Your task to perform on an android device: empty trash in the gmail app Image 0: 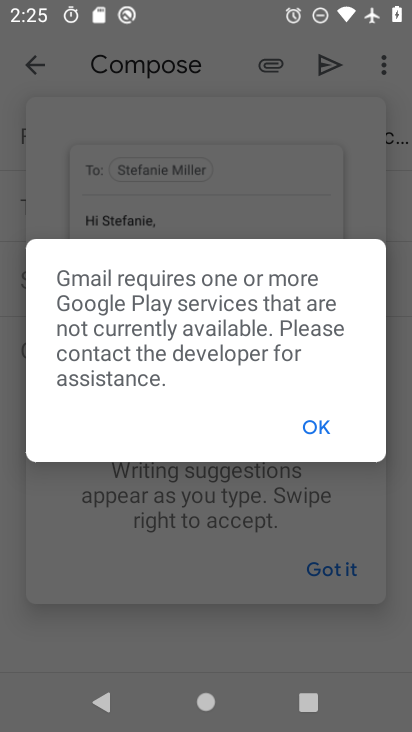
Step 0: press home button
Your task to perform on an android device: empty trash in the gmail app Image 1: 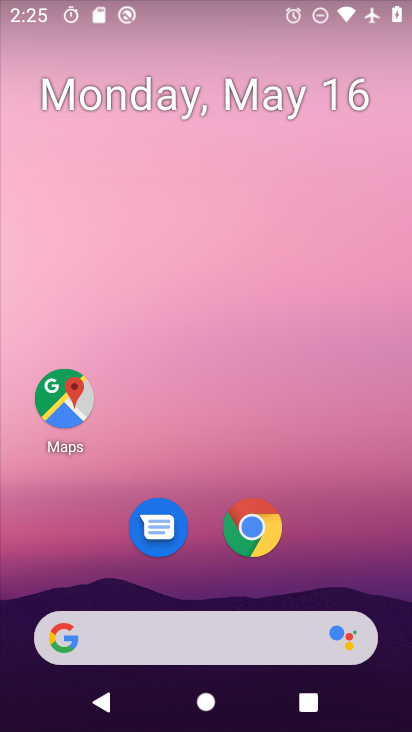
Step 1: drag from (172, 644) to (344, 126)
Your task to perform on an android device: empty trash in the gmail app Image 2: 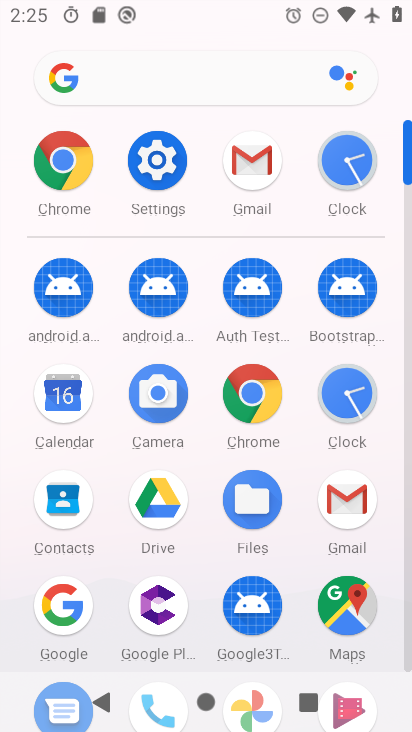
Step 2: click (343, 512)
Your task to perform on an android device: empty trash in the gmail app Image 3: 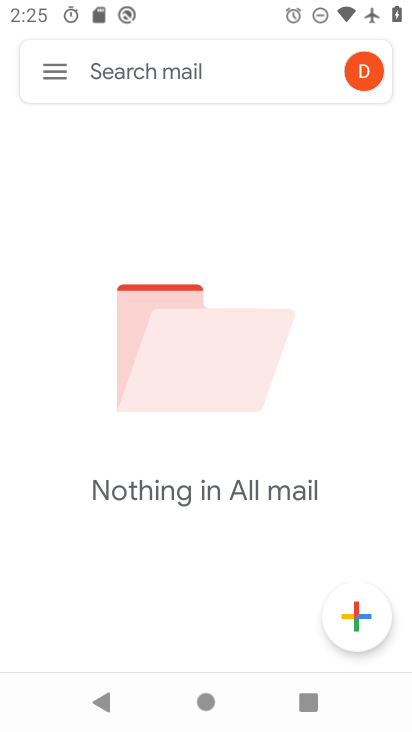
Step 3: click (64, 72)
Your task to perform on an android device: empty trash in the gmail app Image 4: 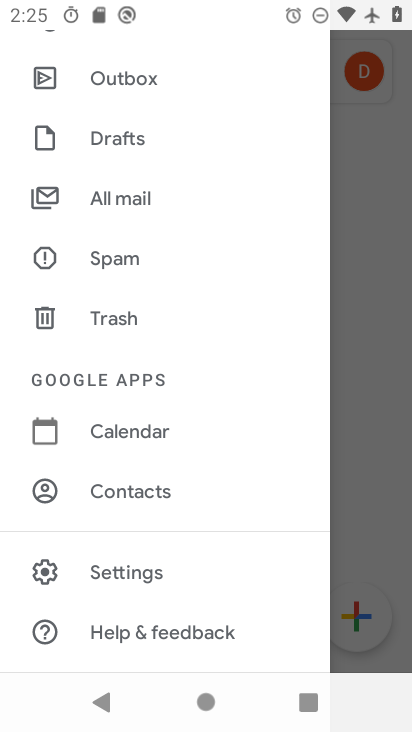
Step 4: click (113, 314)
Your task to perform on an android device: empty trash in the gmail app Image 5: 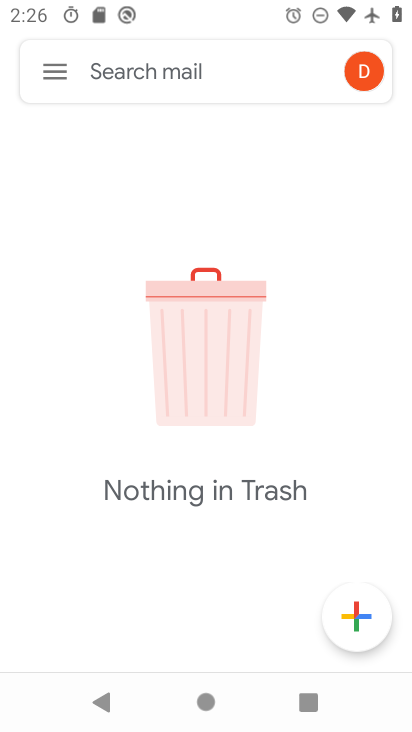
Step 5: task complete